Your task to perform on an android device: Go to ESPN.com Image 0: 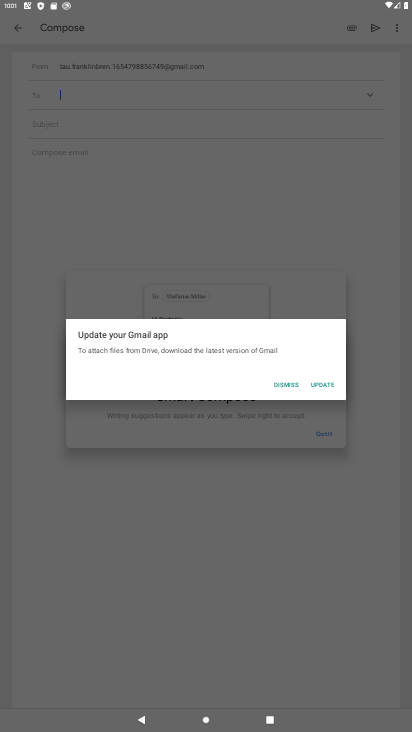
Step 0: press home button
Your task to perform on an android device: Go to ESPN.com Image 1: 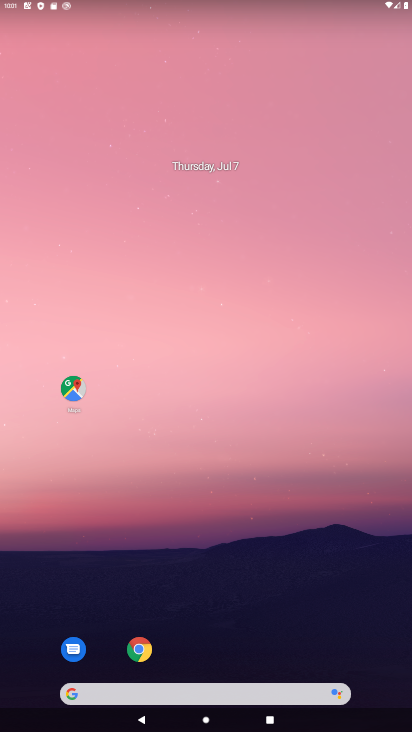
Step 1: click (244, 695)
Your task to perform on an android device: Go to ESPN.com Image 2: 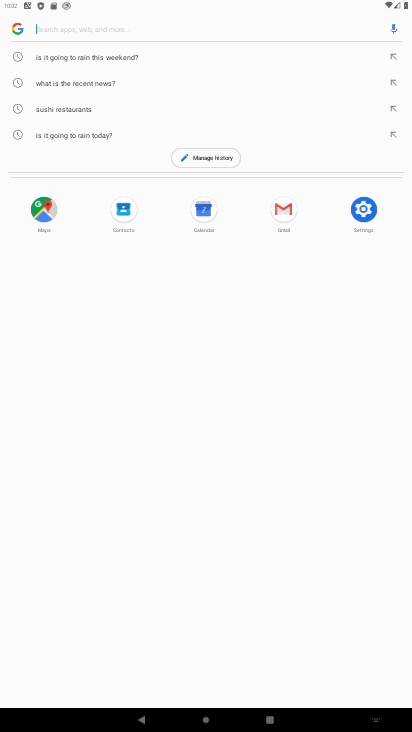
Step 2: type "espn.com"
Your task to perform on an android device: Go to ESPN.com Image 3: 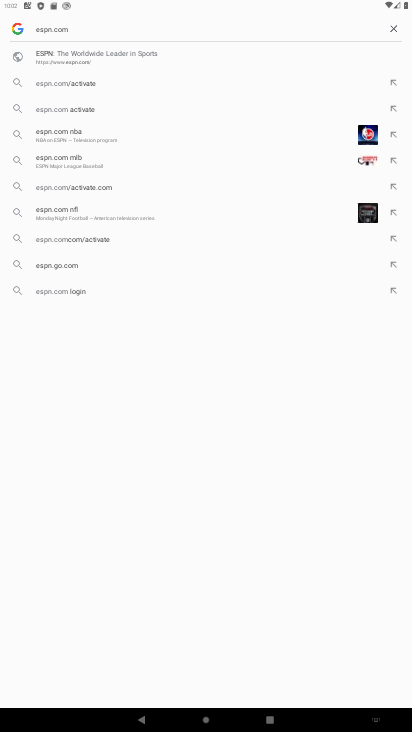
Step 3: press enter
Your task to perform on an android device: Go to ESPN.com Image 4: 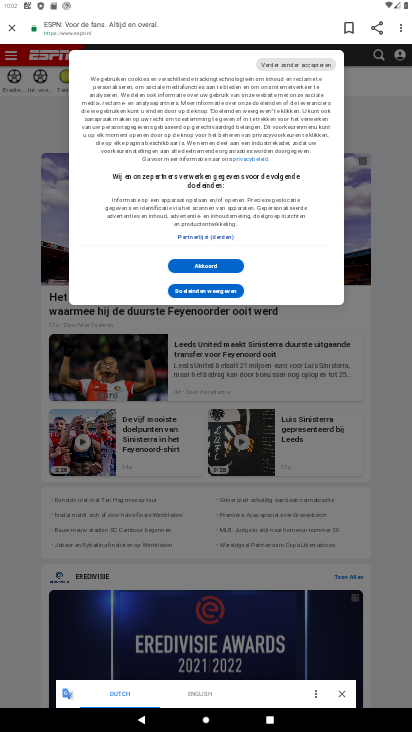
Step 4: task complete